Your task to perform on an android device: turn off location Image 0: 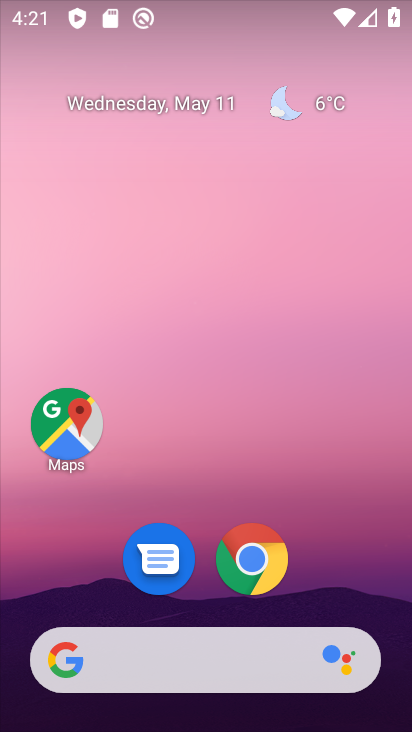
Step 0: drag from (316, 584) to (292, 125)
Your task to perform on an android device: turn off location Image 1: 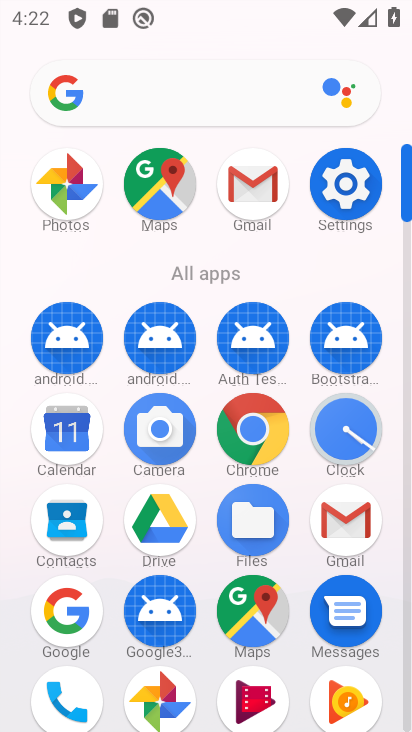
Step 1: click (345, 210)
Your task to perform on an android device: turn off location Image 2: 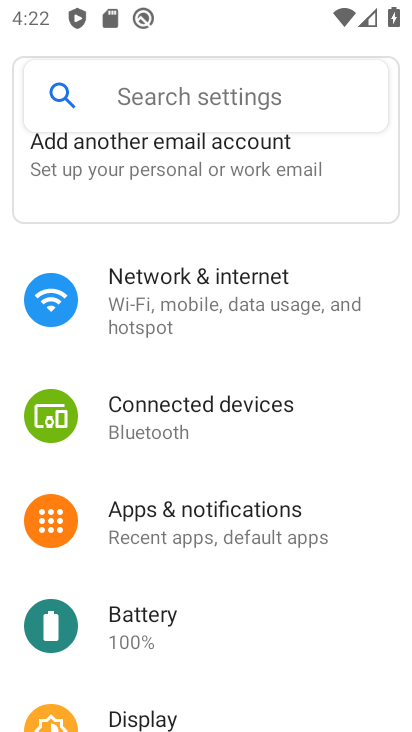
Step 2: drag from (206, 583) to (154, 261)
Your task to perform on an android device: turn off location Image 3: 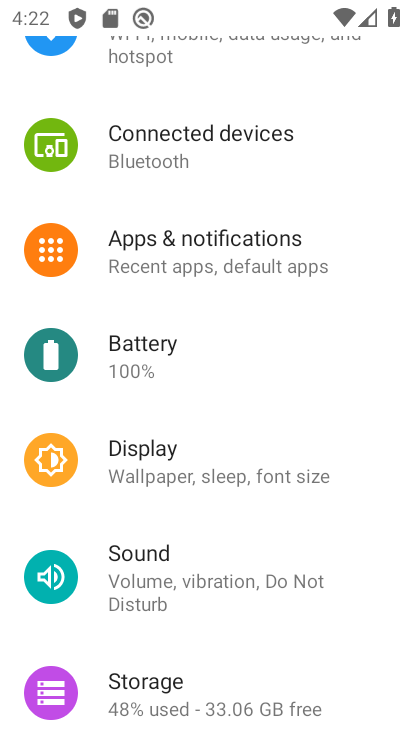
Step 3: drag from (169, 604) to (182, 352)
Your task to perform on an android device: turn off location Image 4: 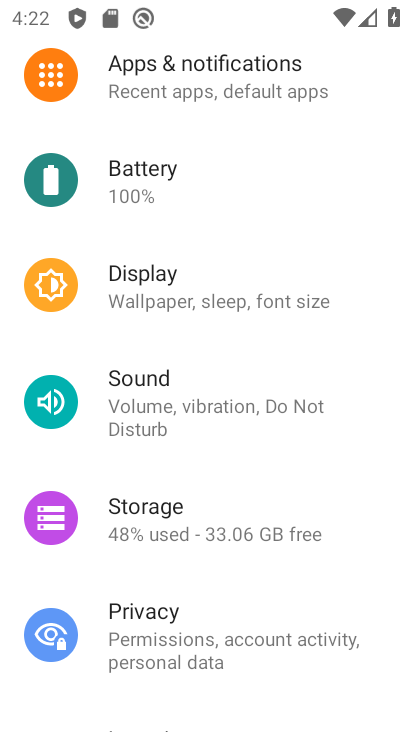
Step 4: drag from (166, 613) to (192, 337)
Your task to perform on an android device: turn off location Image 5: 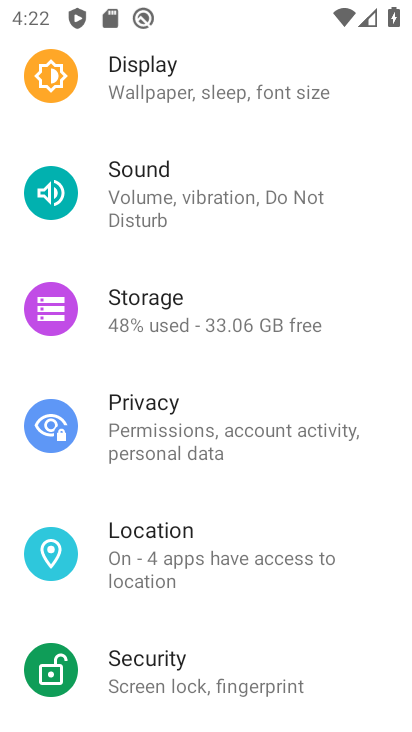
Step 5: click (183, 553)
Your task to perform on an android device: turn off location Image 6: 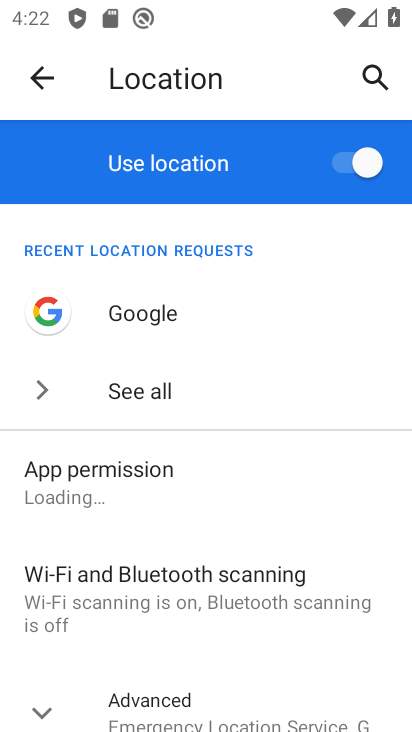
Step 6: drag from (226, 594) to (251, 354)
Your task to perform on an android device: turn off location Image 7: 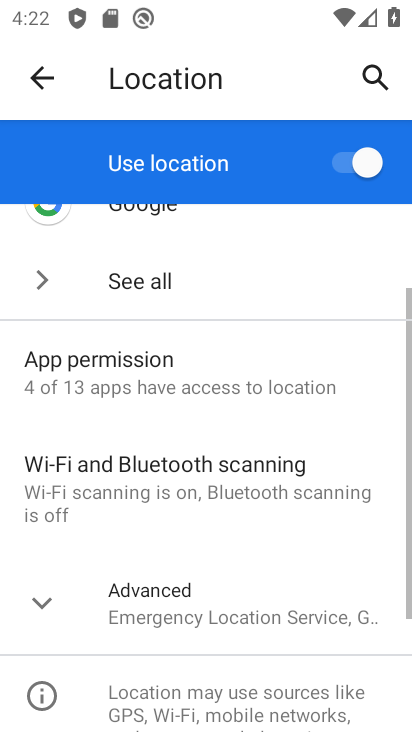
Step 7: click (145, 574)
Your task to perform on an android device: turn off location Image 8: 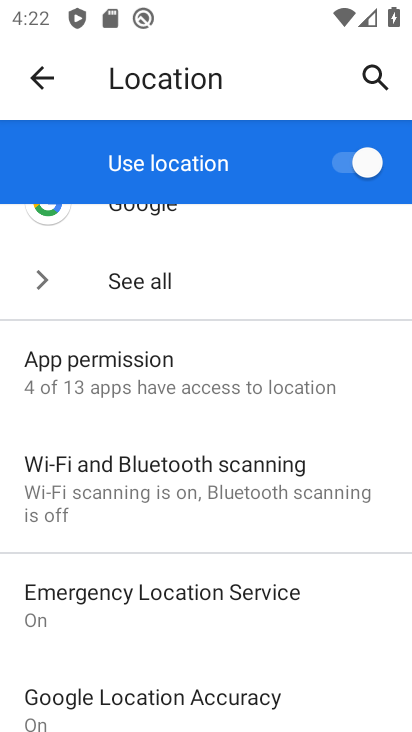
Step 8: drag from (162, 635) to (208, 420)
Your task to perform on an android device: turn off location Image 9: 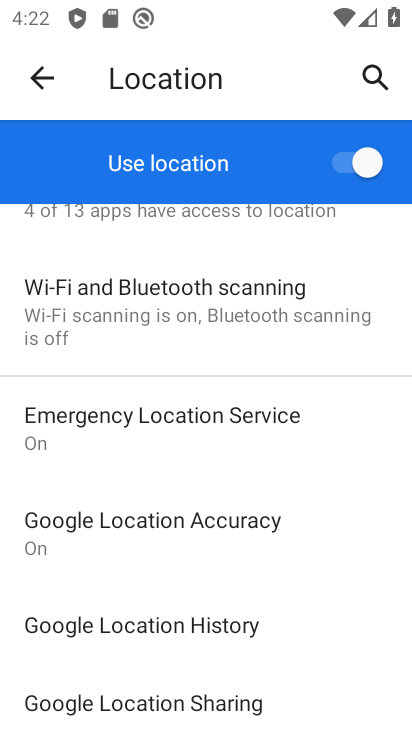
Step 9: drag from (191, 659) to (220, 369)
Your task to perform on an android device: turn off location Image 10: 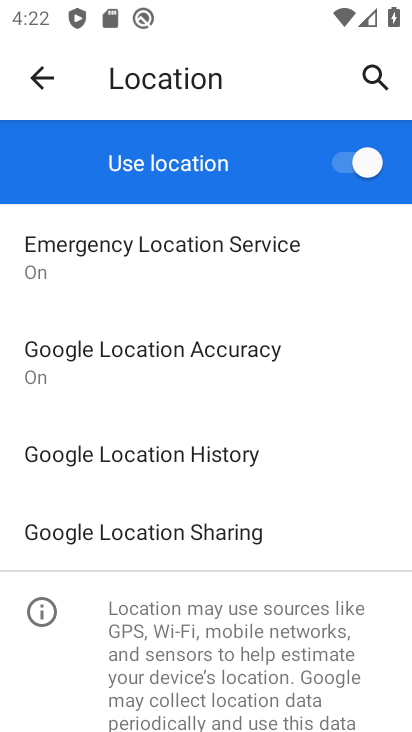
Step 10: click (355, 153)
Your task to perform on an android device: turn off location Image 11: 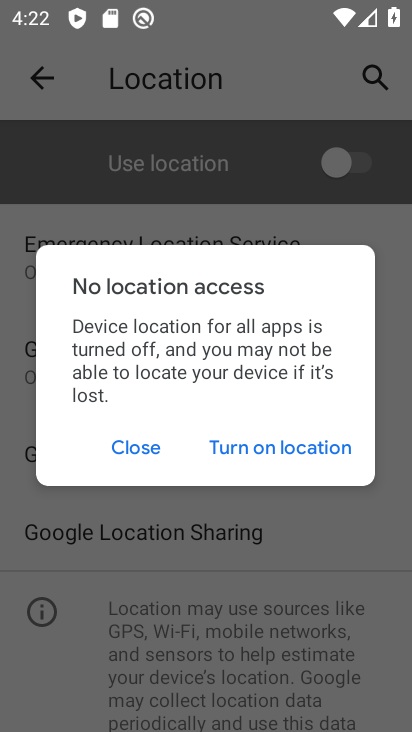
Step 11: task complete